Your task to perform on an android device: Open the web browser Image 0: 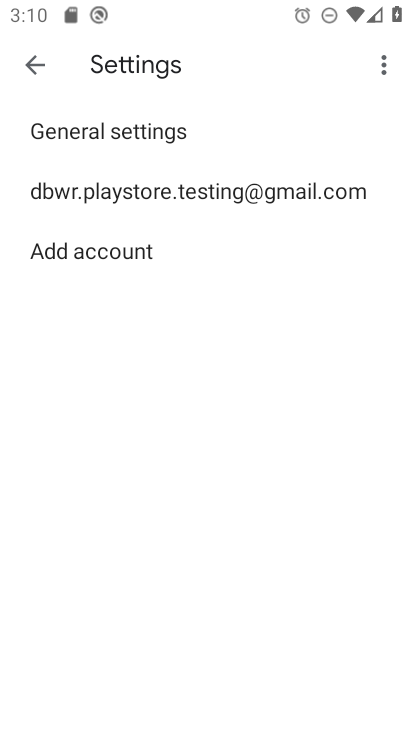
Step 0: press home button
Your task to perform on an android device: Open the web browser Image 1: 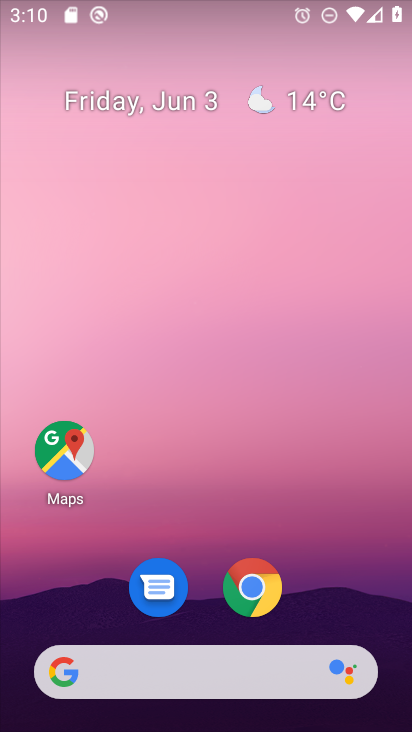
Step 1: click (268, 588)
Your task to perform on an android device: Open the web browser Image 2: 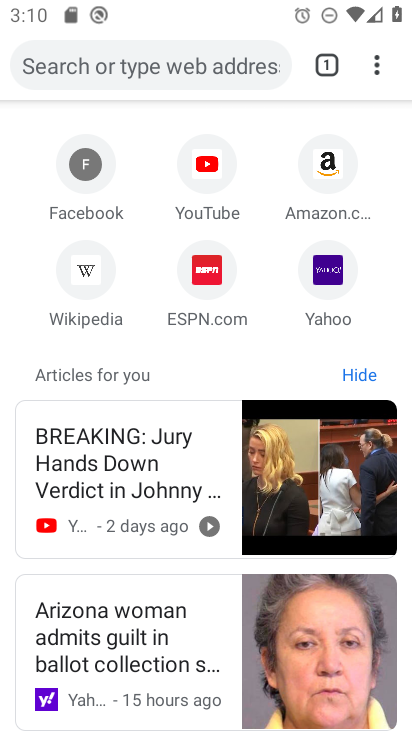
Step 2: task complete